Your task to perform on an android device: delete the emails in spam in the gmail app Image 0: 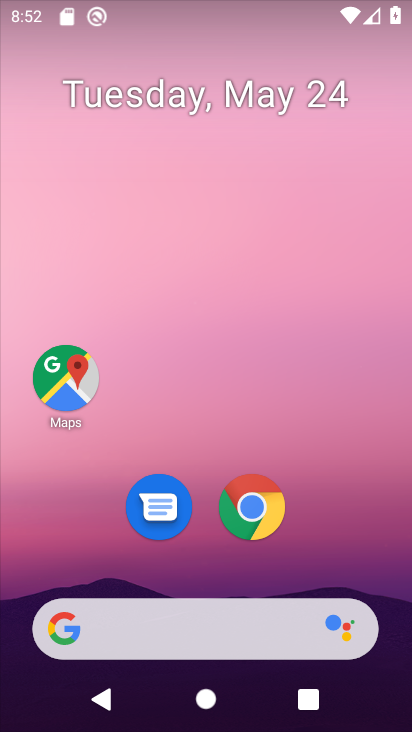
Step 0: drag from (203, 559) to (262, 131)
Your task to perform on an android device: delete the emails in spam in the gmail app Image 1: 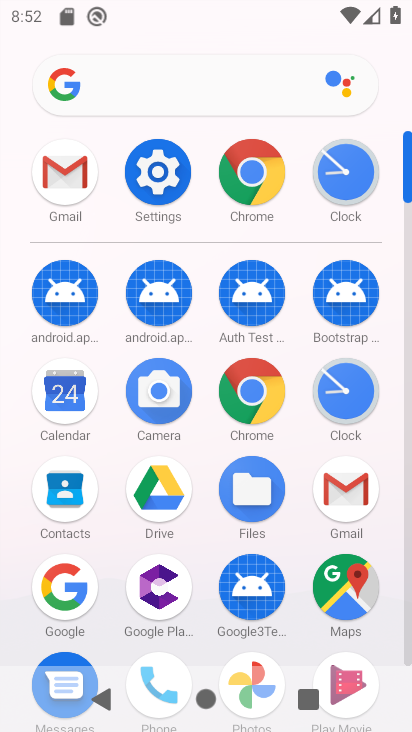
Step 1: drag from (195, 626) to (185, 238)
Your task to perform on an android device: delete the emails in spam in the gmail app Image 2: 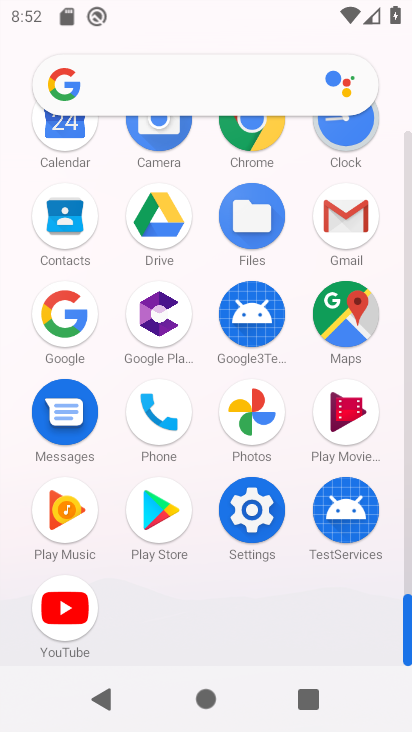
Step 2: click (353, 218)
Your task to perform on an android device: delete the emails in spam in the gmail app Image 3: 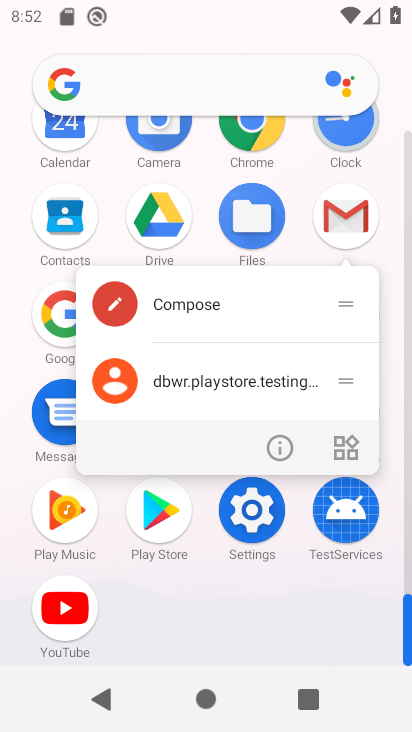
Step 3: click (282, 441)
Your task to perform on an android device: delete the emails in spam in the gmail app Image 4: 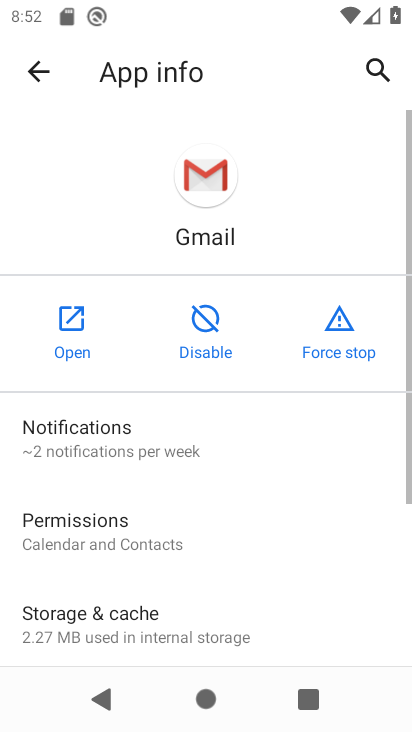
Step 4: click (85, 317)
Your task to perform on an android device: delete the emails in spam in the gmail app Image 5: 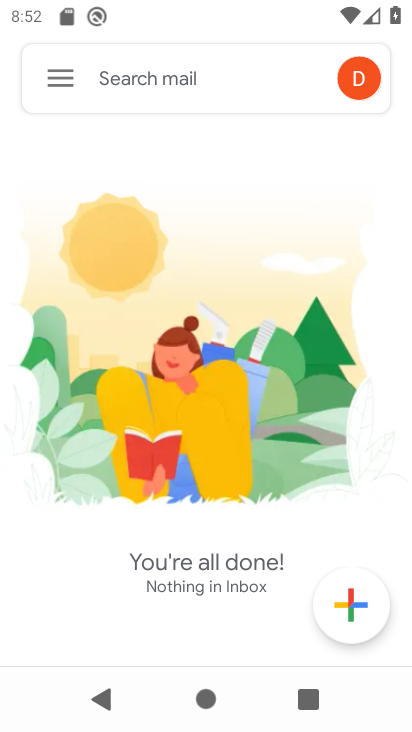
Step 5: click (34, 78)
Your task to perform on an android device: delete the emails in spam in the gmail app Image 6: 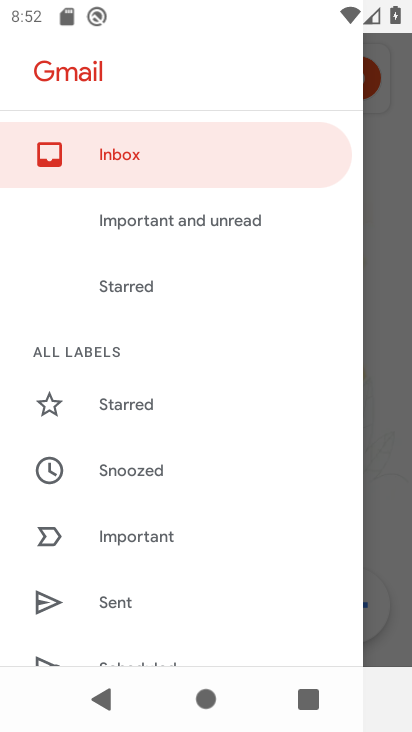
Step 6: drag from (202, 575) to (334, 250)
Your task to perform on an android device: delete the emails in spam in the gmail app Image 7: 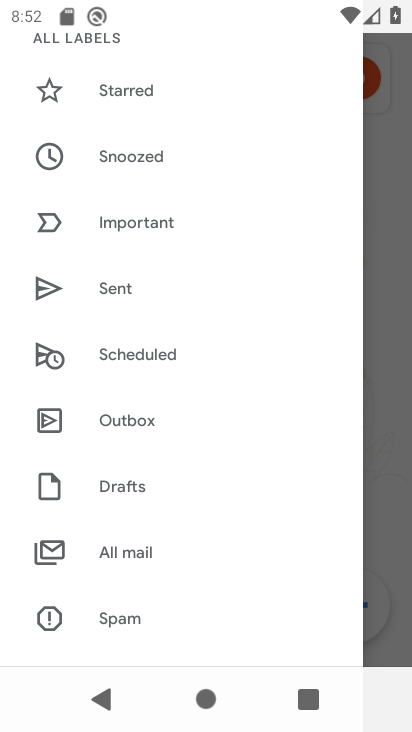
Step 7: drag from (153, 618) to (191, 173)
Your task to perform on an android device: delete the emails in spam in the gmail app Image 8: 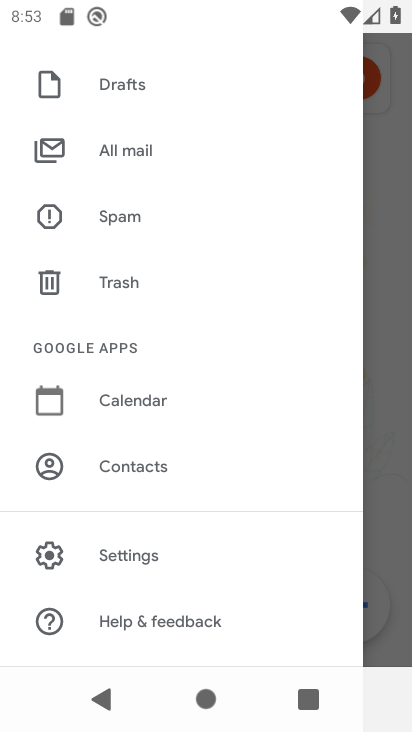
Step 8: click (116, 224)
Your task to perform on an android device: delete the emails in spam in the gmail app Image 9: 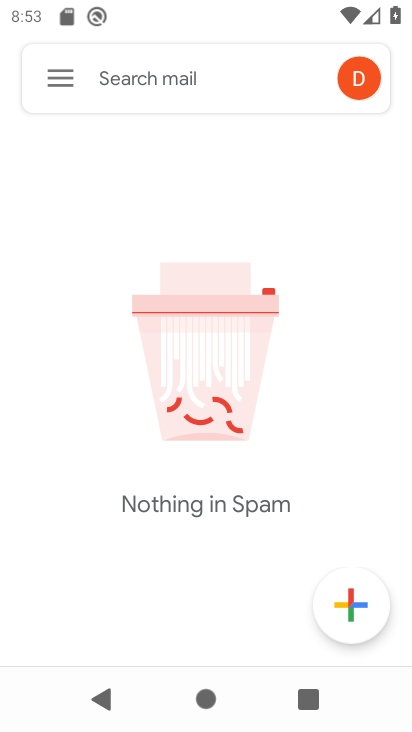
Step 9: drag from (174, 536) to (265, 190)
Your task to perform on an android device: delete the emails in spam in the gmail app Image 10: 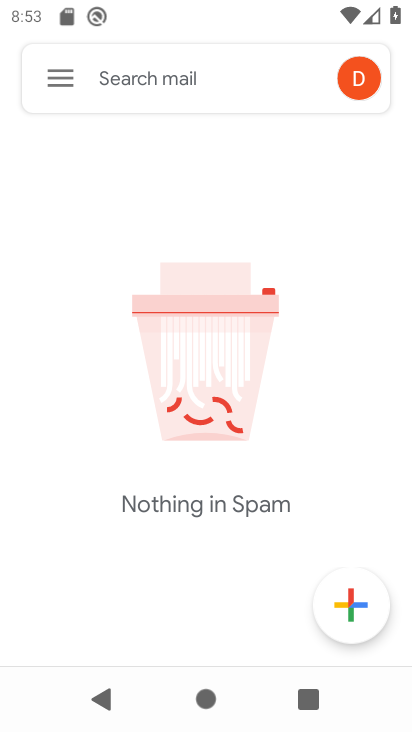
Step 10: click (79, 84)
Your task to perform on an android device: delete the emails in spam in the gmail app Image 11: 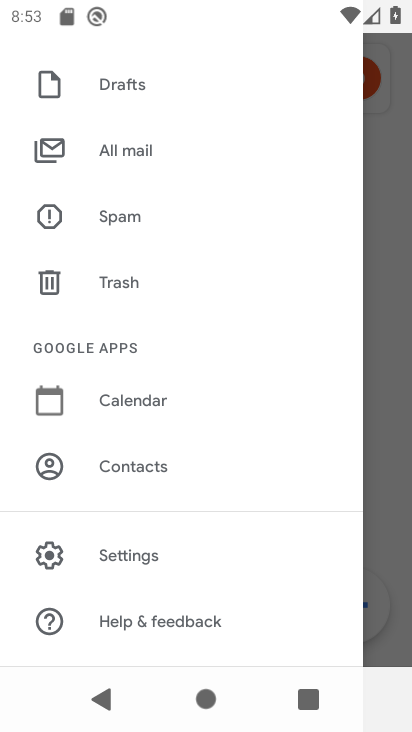
Step 11: click (162, 208)
Your task to perform on an android device: delete the emails in spam in the gmail app Image 12: 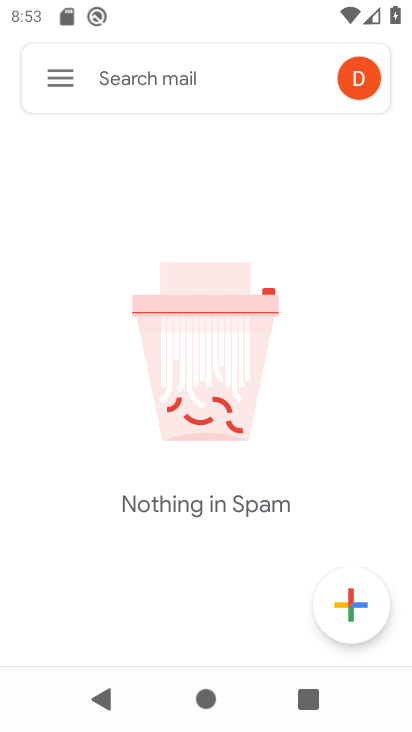
Step 12: task complete